Your task to perform on an android device: add a contact in the contacts app Image 0: 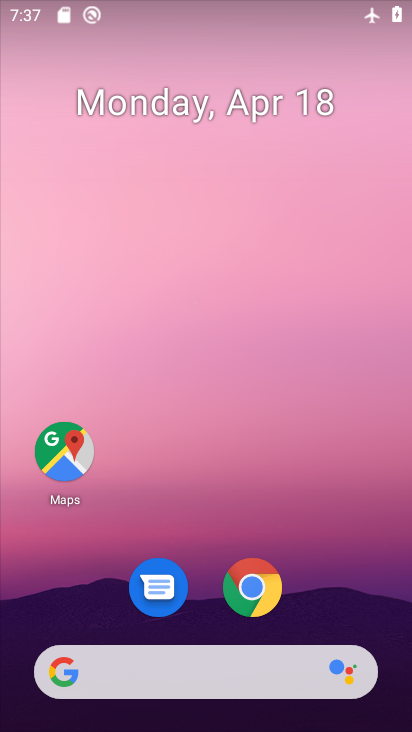
Step 0: drag from (180, 511) to (212, 37)
Your task to perform on an android device: add a contact in the contacts app Image 1: 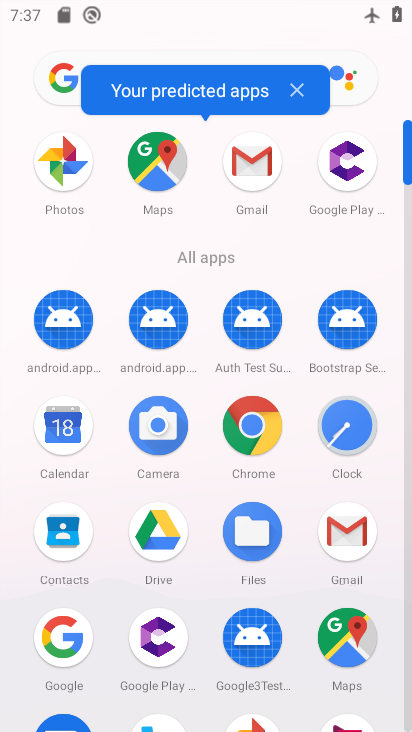
Step 1: click (66, 540)
Your task to perform on an android device: add a contact in the contacts app Image 2: 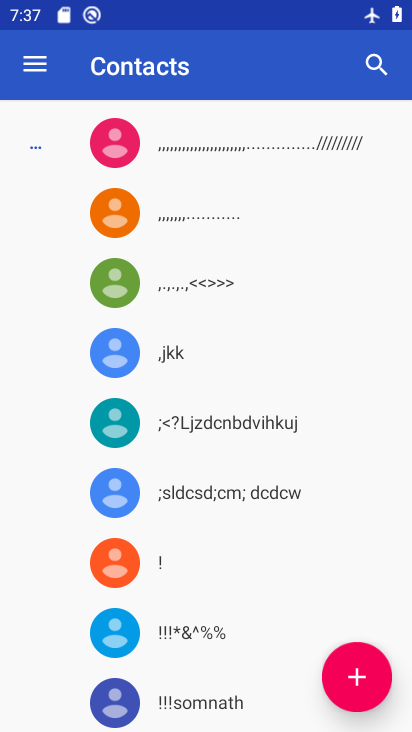
Step 2: click (333, 691)
Your task to perform on an android device: add a contact in the contacts app Image 3: 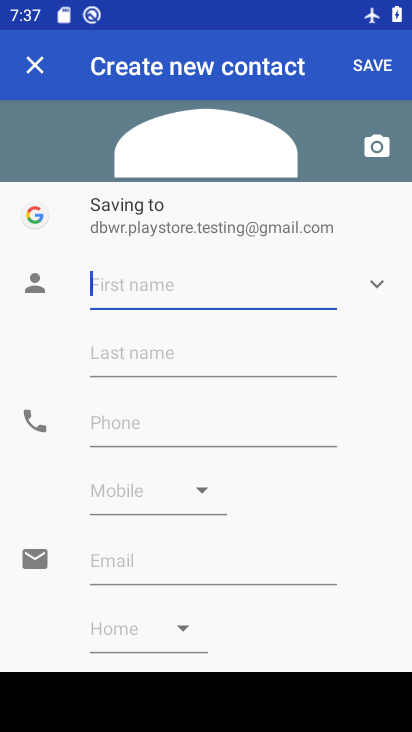
Step 3: type "..."
Your task to perform on an android device: add a contact in the contacts app Image 4: 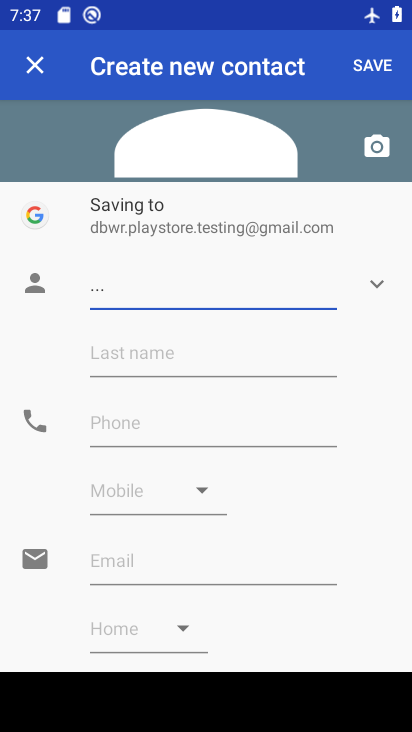
Step 4: click (226, 409)
Your task to perform on an android device: add a contact in the contacts app Image 5: 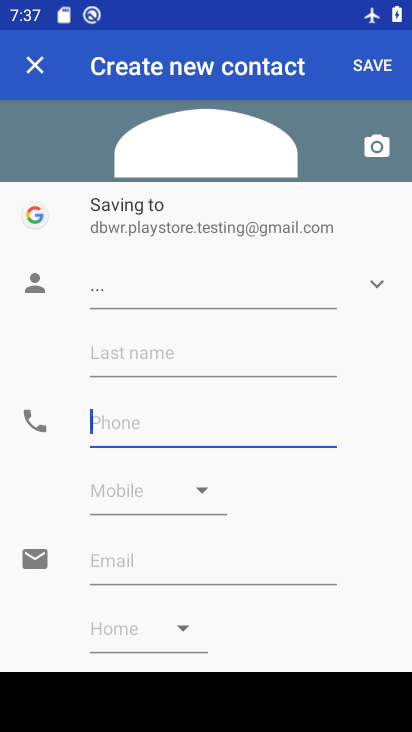
Step 5: type "1234567876"
Your task to perform on an android device: add a contact in the contacts app Image 6: 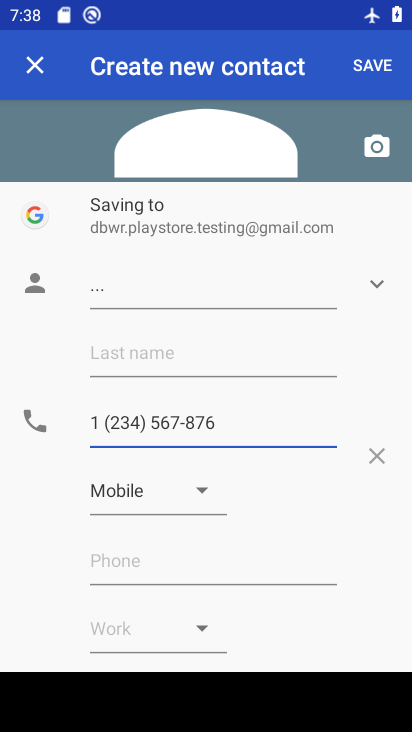
Step 6: click (375, 65)
Your task to perform on an android device: add a contact in the contacts app Image 7: 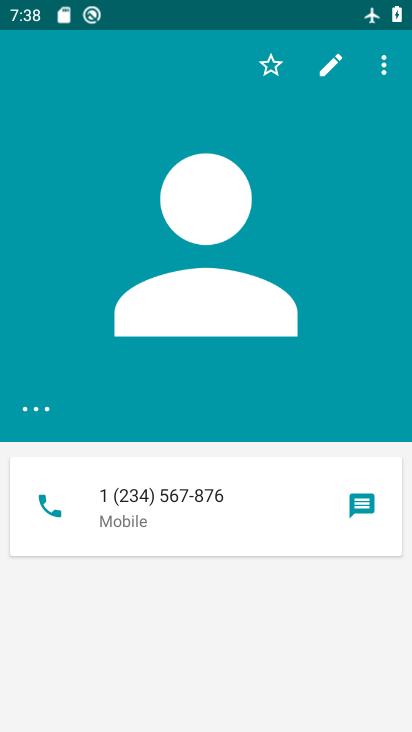
Step 7: task complete